Your task to perform on an android device: Open Google Image 0: 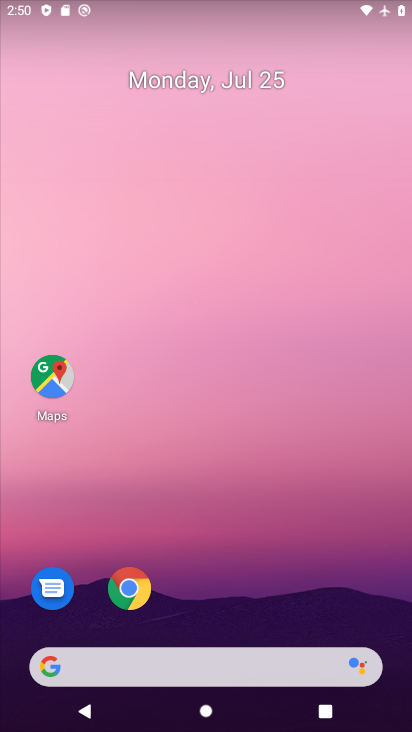
Step 0: drag from (228, 727) to (229, 117)
Your task to perform on an android device: Open Google Image 1: 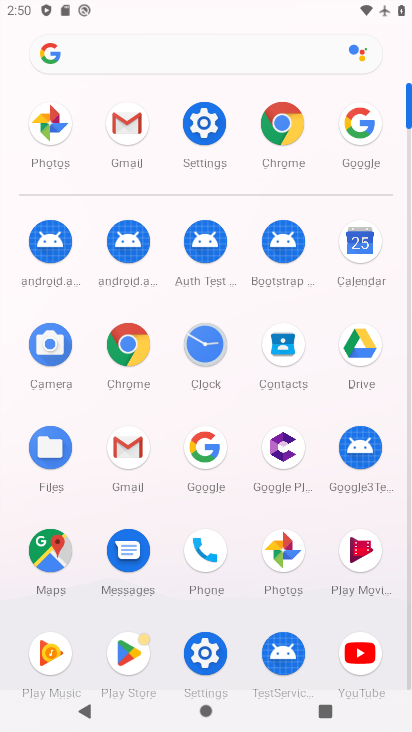
Step 1: click (209, 441)
Your task to perform on an android device: Open Google Image 2: 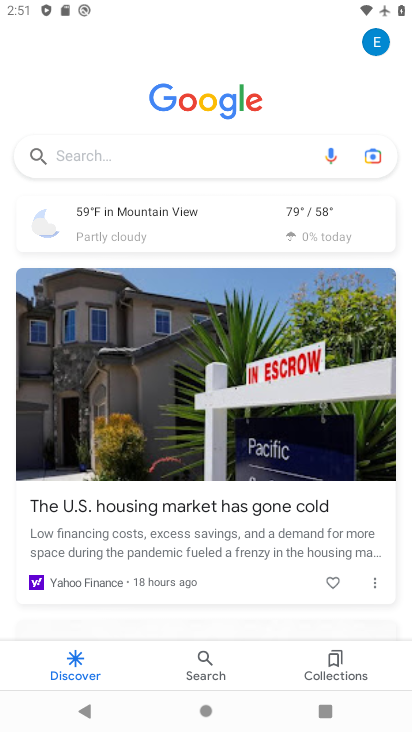
Step 2: task complete